Your task to perform on an android device: Go to Google maps Image 0: 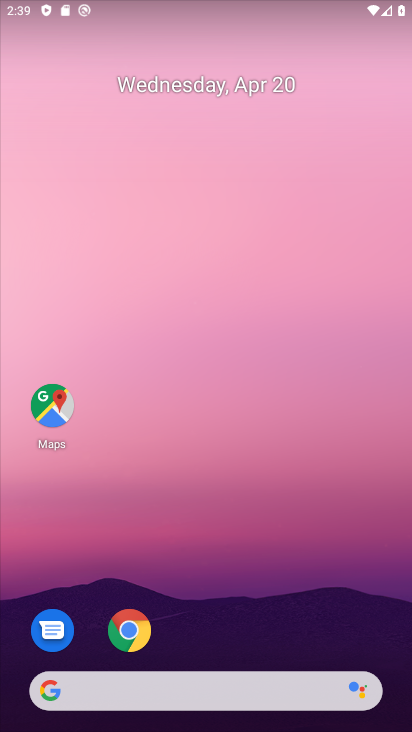
Step 0: click (42, 432)
Your task to perform on an android device: Go to Google maps Image 1: 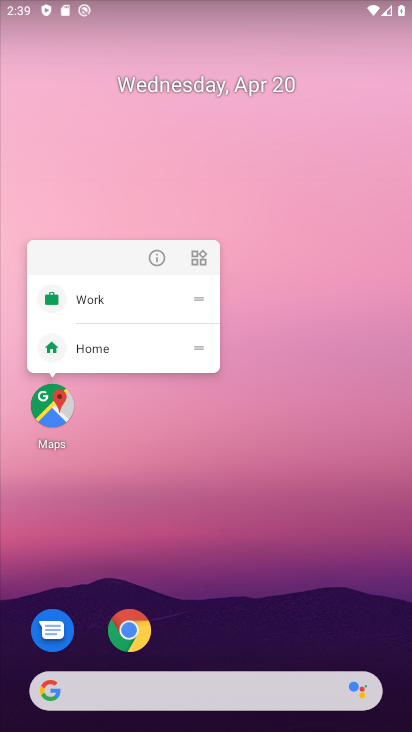
Step 1: click (55, 392)
Your task to perform on an android device: Go to Google maps Image 2: 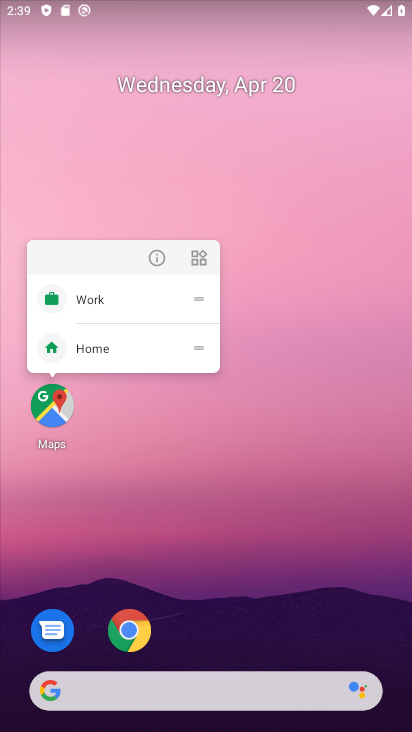
Step 2: click (55, 392)
Your task to perform on an android device: Go to Google maps Image 3: 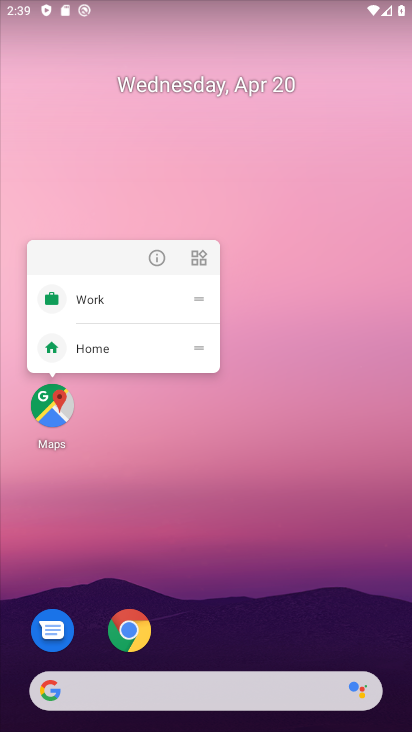
Step 3: click (55, 392)
Your task to perform on an android device: Go to Google maps Image 4: 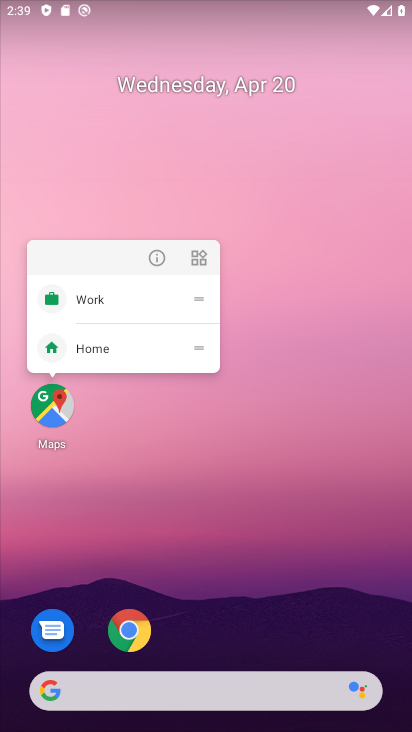
Step 4: click (55, 392)
Your task to perform on an android device: Go to Google maps Image 5: 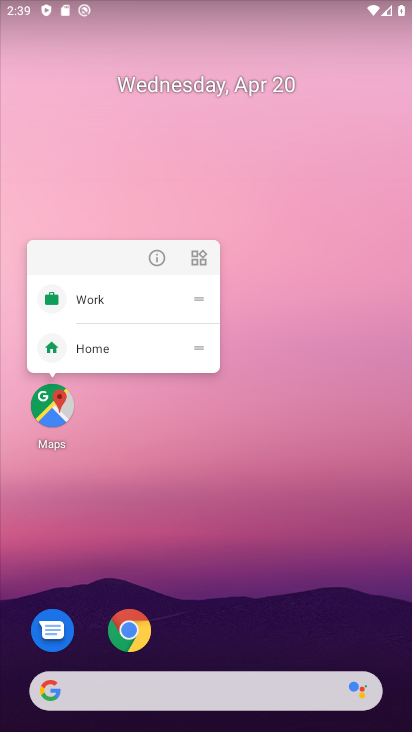
Step 5: click (55, 392)
Your task to perform on an android device: Go to Google maps Image 6: 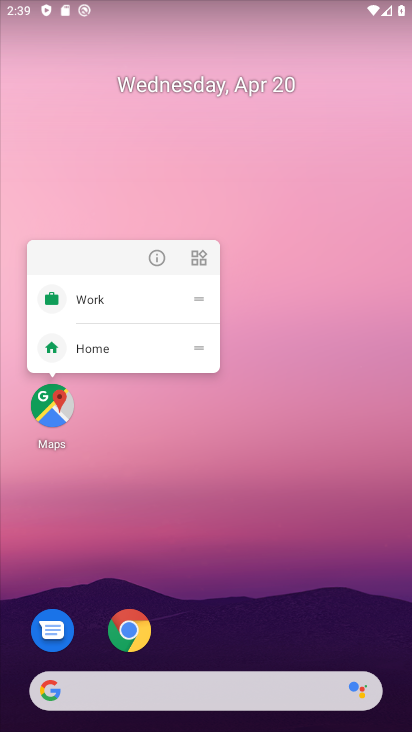
Step 6: click (55, 392)
Your task to perform on an android device: Go to Google maps Image 7: 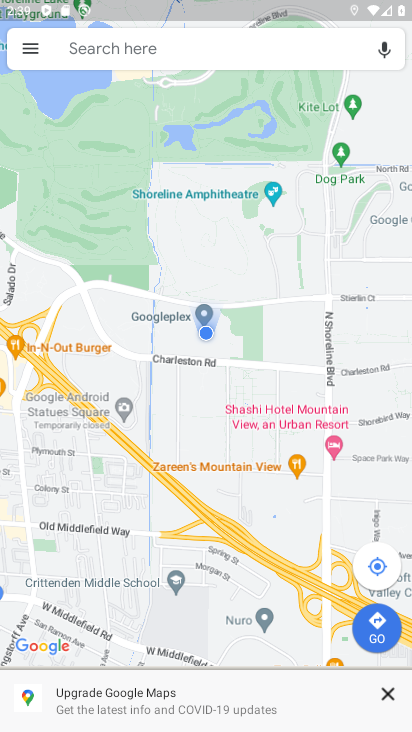
Step 7: click (55, 392)
Your task to perform on an android device: Go to Google maps Image 8: 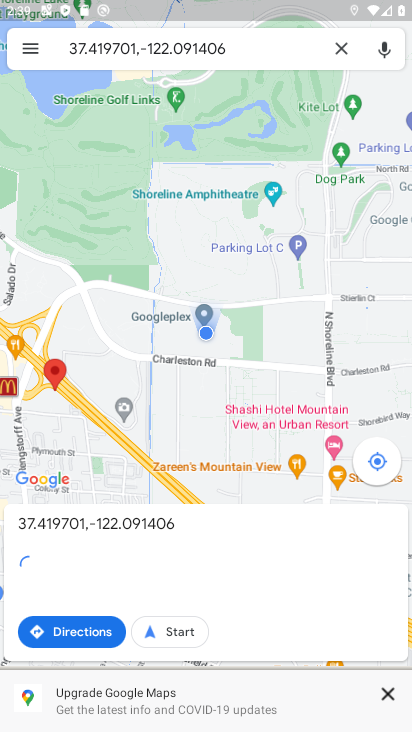
Step 8: task complete